Your task to perform on an android device: Check the news Image 0: 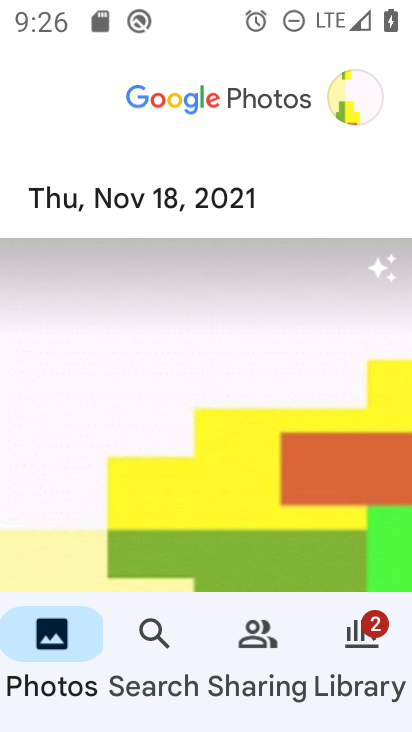
Step 0: press home button
Your task to perform on an android device: Check the news Image 1: 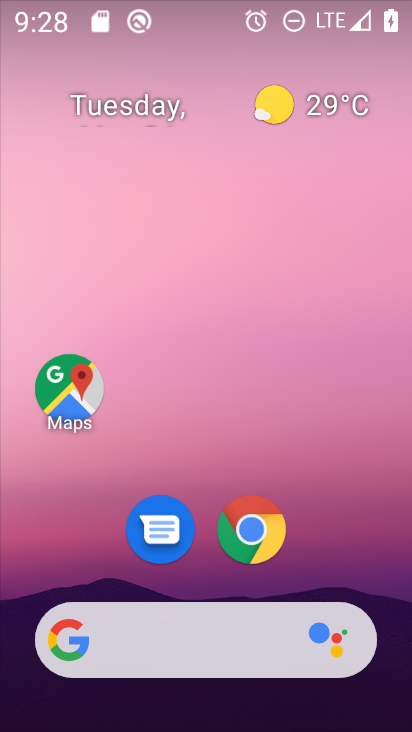
Step 1: drag from (390, 611) to (368, 114)
Your task to perform on an android device: Check the news Image 2: 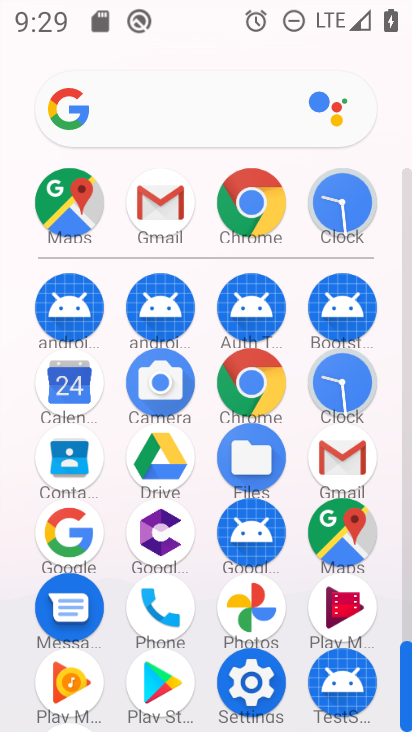
Step 2: click (54, 546)
Your task to perform on an android device: Check the news Image 3: 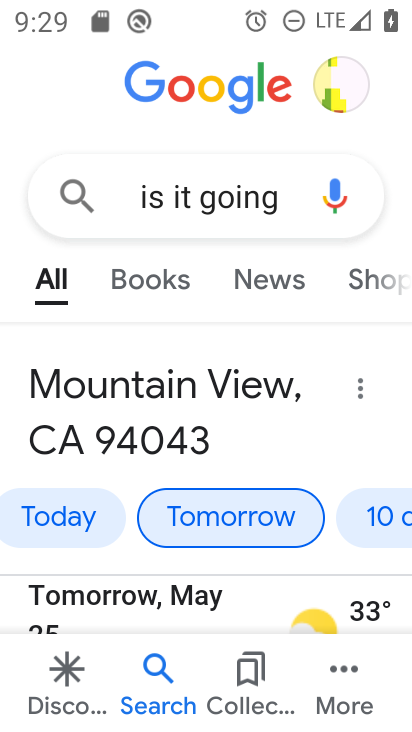
Step 3: press back button
Your task to perform on an android device: Check the news Image 4: 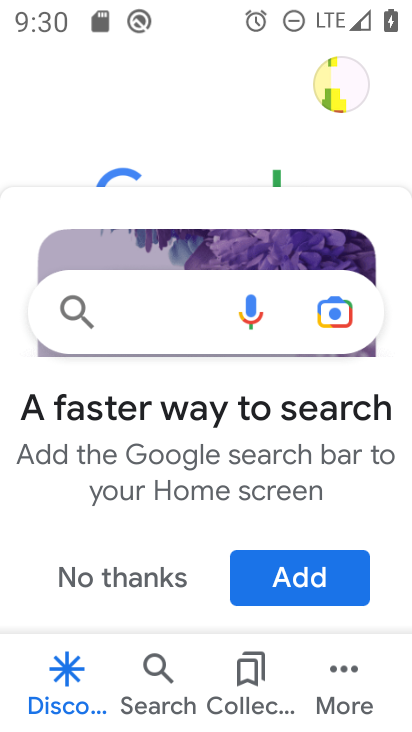
Step 4: click (122, 322)
Your task to perform on an android device: Check the news Image 5: 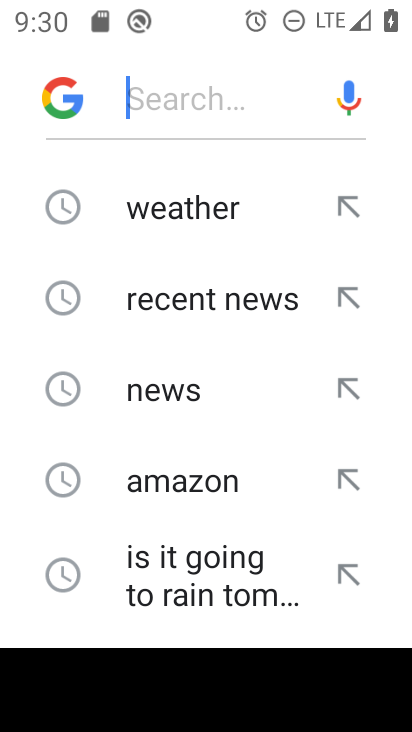
Step 5: click (198, 404)
Your task to perform on an android device: Check the news Image 6: 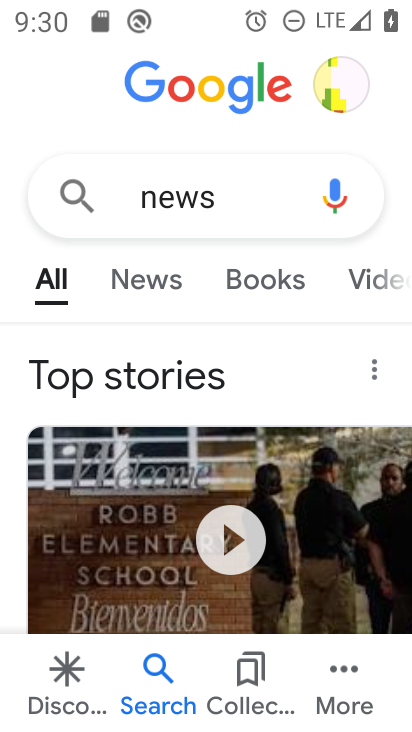
Step 6: task complete